Your task to perform on an android device: change the clock display to show seconds Image 0: 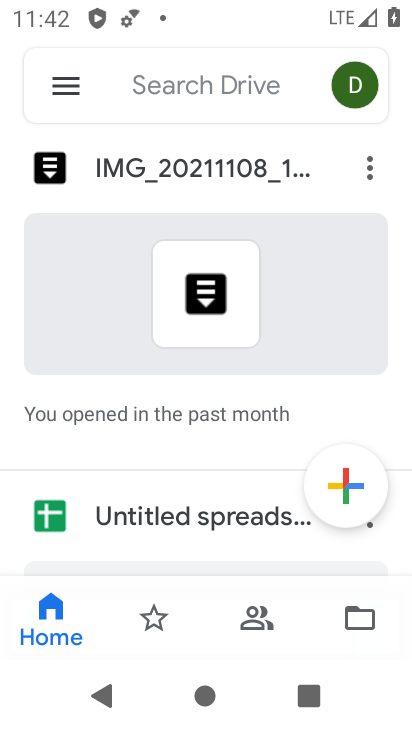
Step 0: press home button
Your task to perform on an android device: change the clock display to show seconds Image 1: 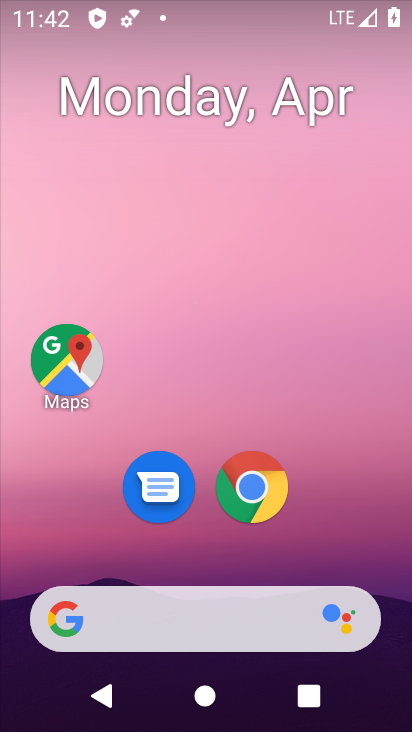
Step 1: drag from (374, 520) to (348, 183)
Your task to perform on an android device: change the clock display to show seconds Image 2: 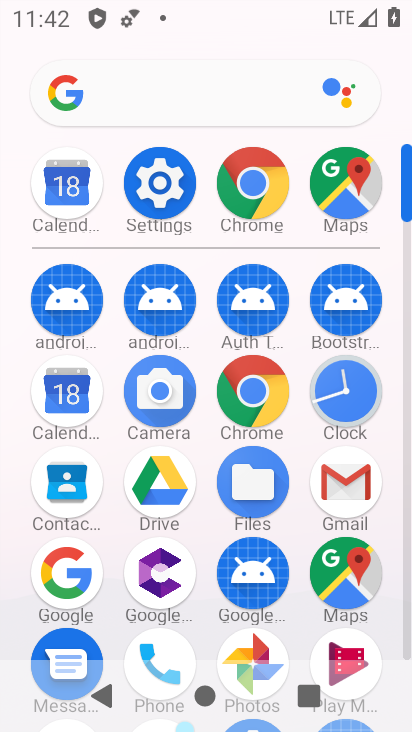
Step 2: click (346, 386)
Your task to perform on an android device: change the clock display to show seconds Image 3: 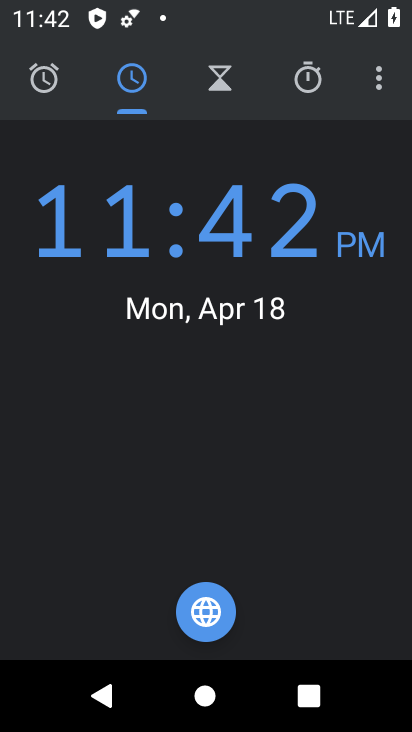
Step 3: click (375, 77)
Your task to perform on an android device: change the clock display to show seconds Image 4: 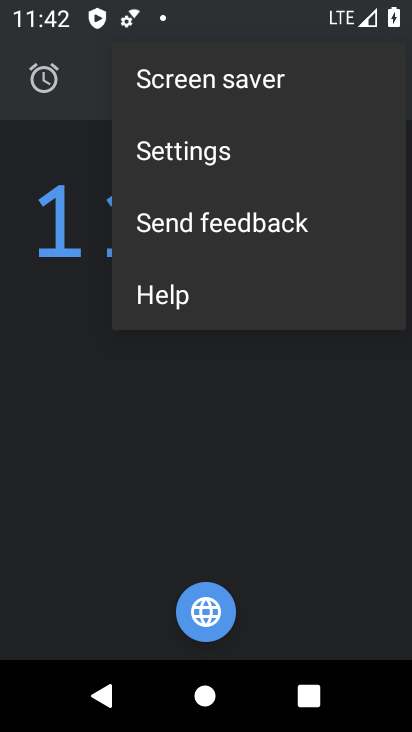
Step 4: click (314, 165)
Your task to perform on an android device: change the clock display to show seconds Image 5: 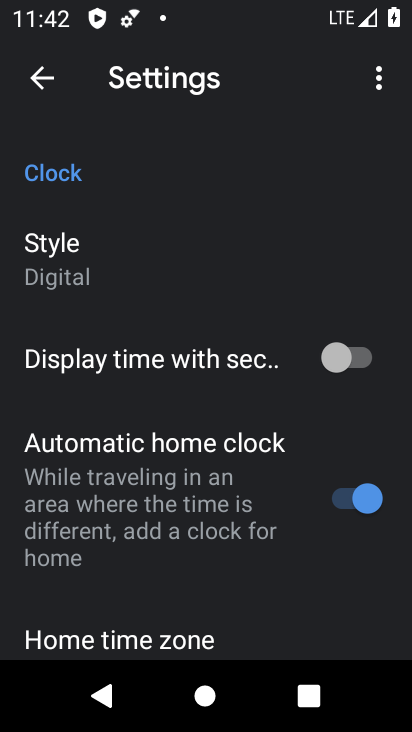
Step 5: click (353, 356)
Your task to perform on an android device: change the clock display to show seconds Image 6: 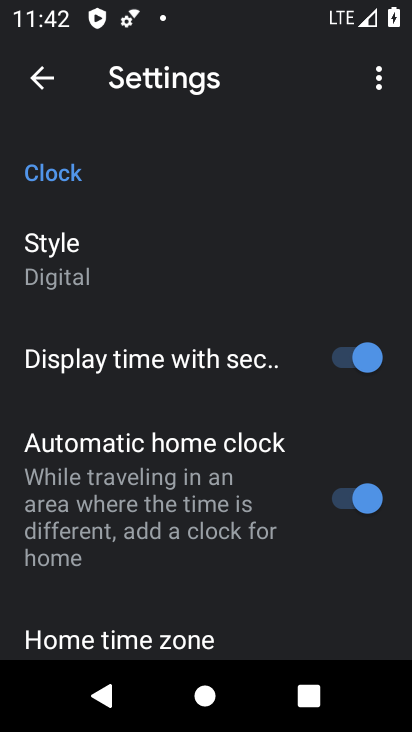
Step 6: task complete